Your task to perform on an android device: toggle wifi Image 0: 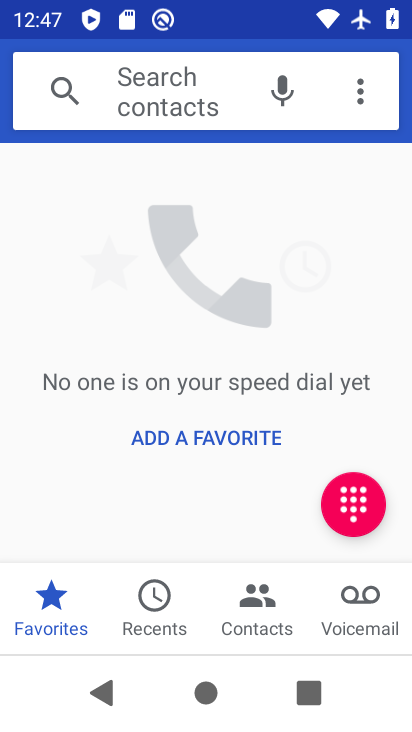
Step 0: press home button
Your task to perform on an android device: toggle wifi Image 1: 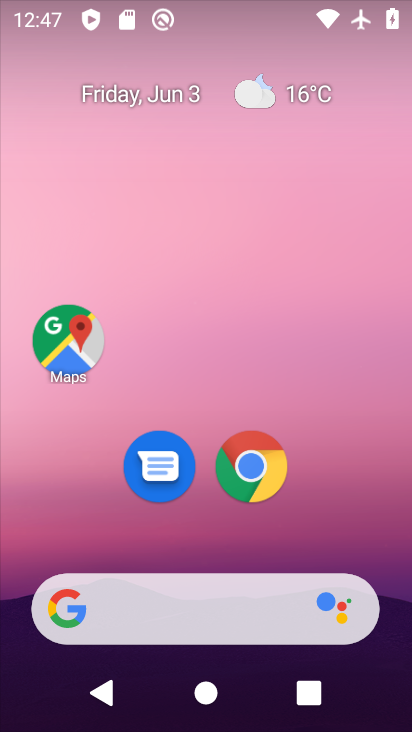
Step 1: drag from (245, 579) to (208, 307)
Your task to perform on an android device: toggle wifi Image 2: 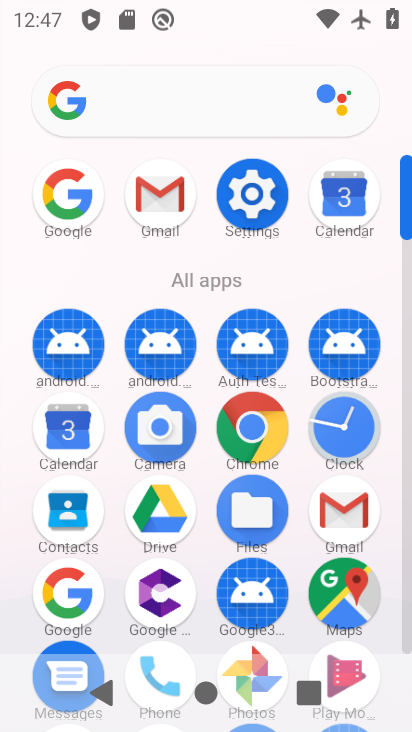
Step 2: click (244, 208)
Your task to perform on an android device: toggle wifi Image 3: 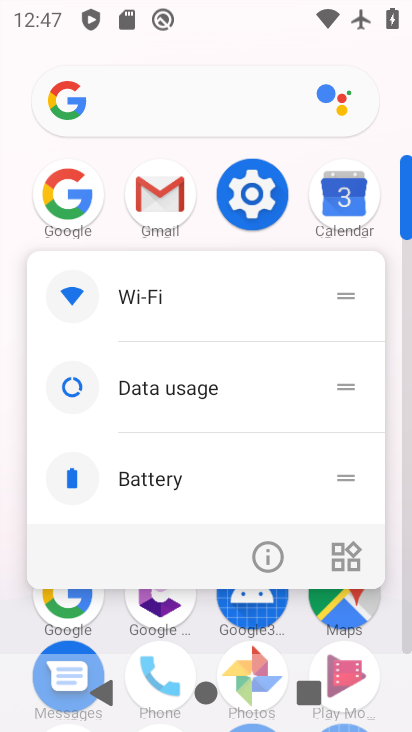
Step 3: click (248, 205)
Your task to perform on an android device: toggle wifi Image 4: 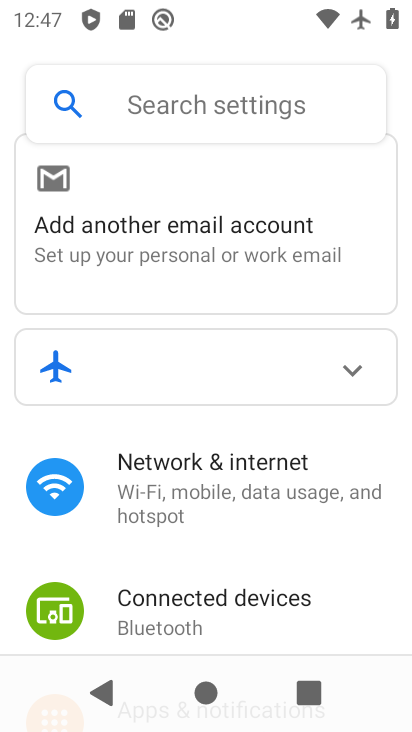
Step 4: click (192, 483)
Your task to perform on an android device: toggle wifi Image 5: 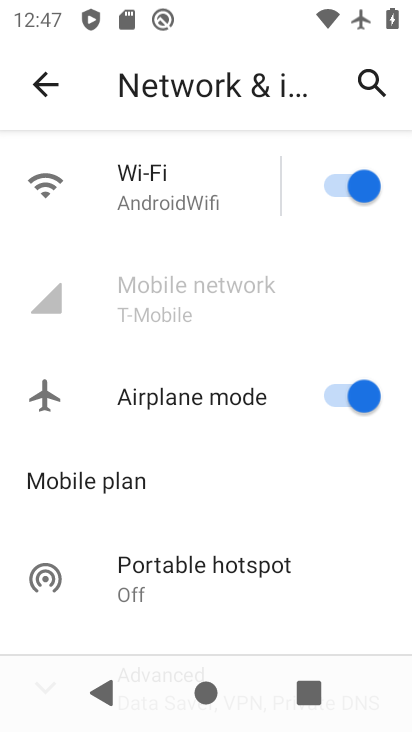
Step 5: click (336, 181)
Your task to perform on an android device: toggle wifi Image 6: 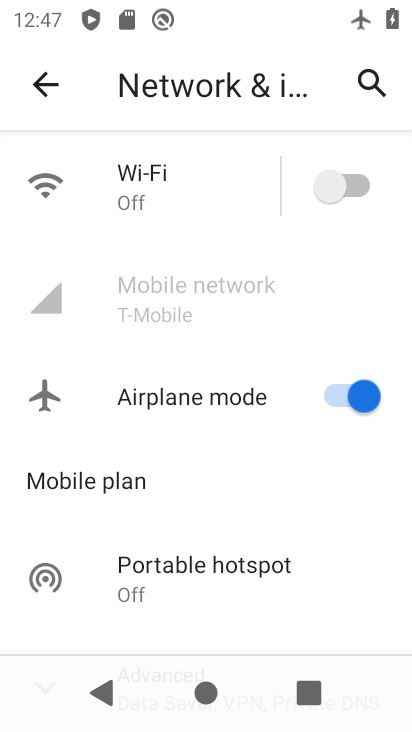
Step 6: task complete